Your task to perform on an android device: Go to Android settings Image 0: 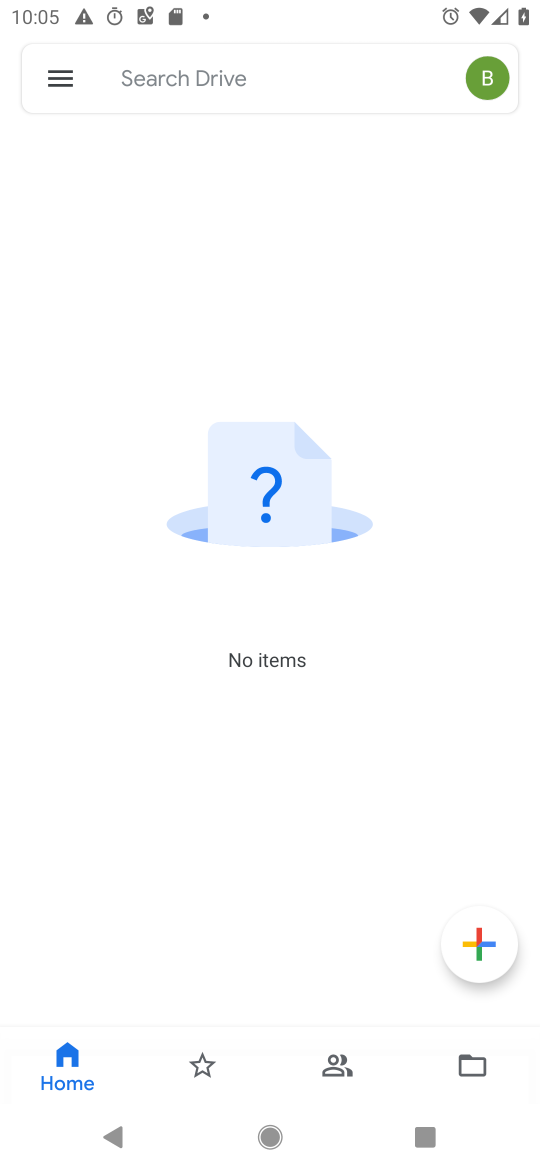
Step 0: click (524, 126)
Your task to perform on an android device: Go to Android settings Image 1: 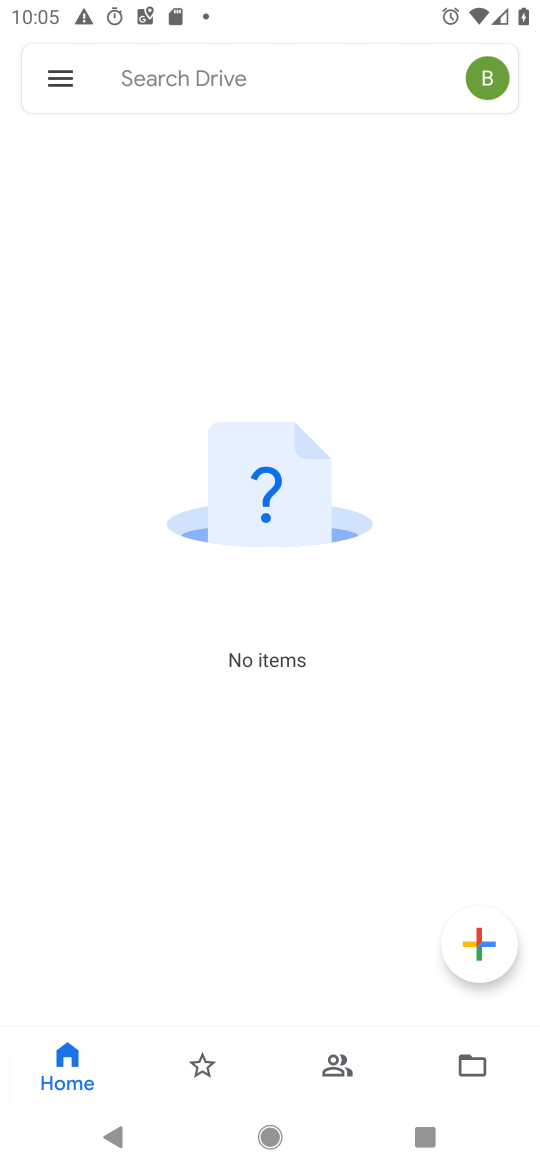
Step 1: drag from (275, 986) to (271, 445)
Your task to perform on an android device: Go to Android settings Image 2: 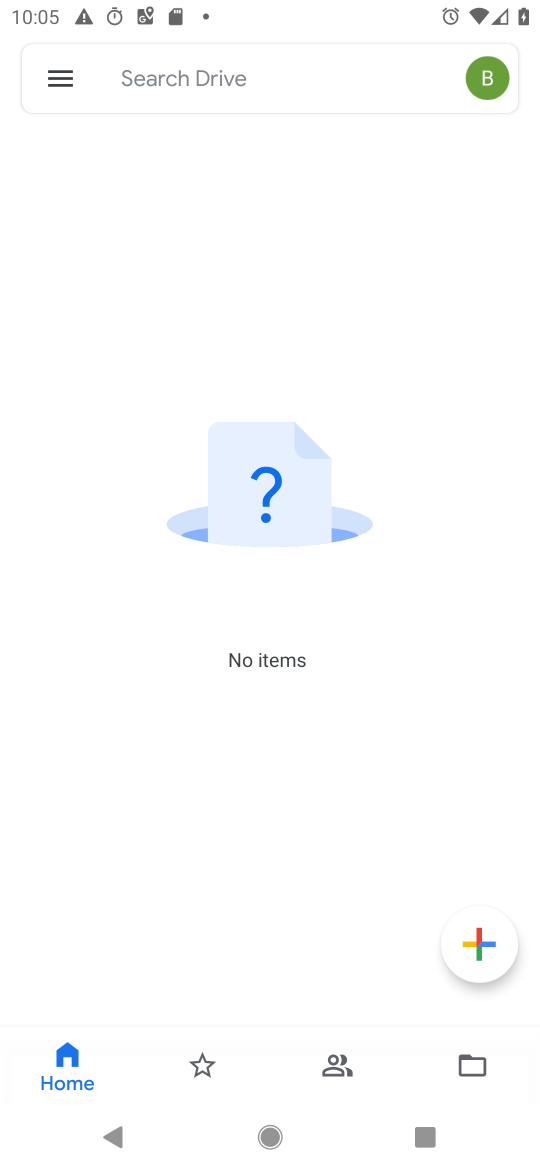
Step 2: drag from (293, 952) to (332, 666)
Your task to perform on an android device: Go to Android settings Image 3: 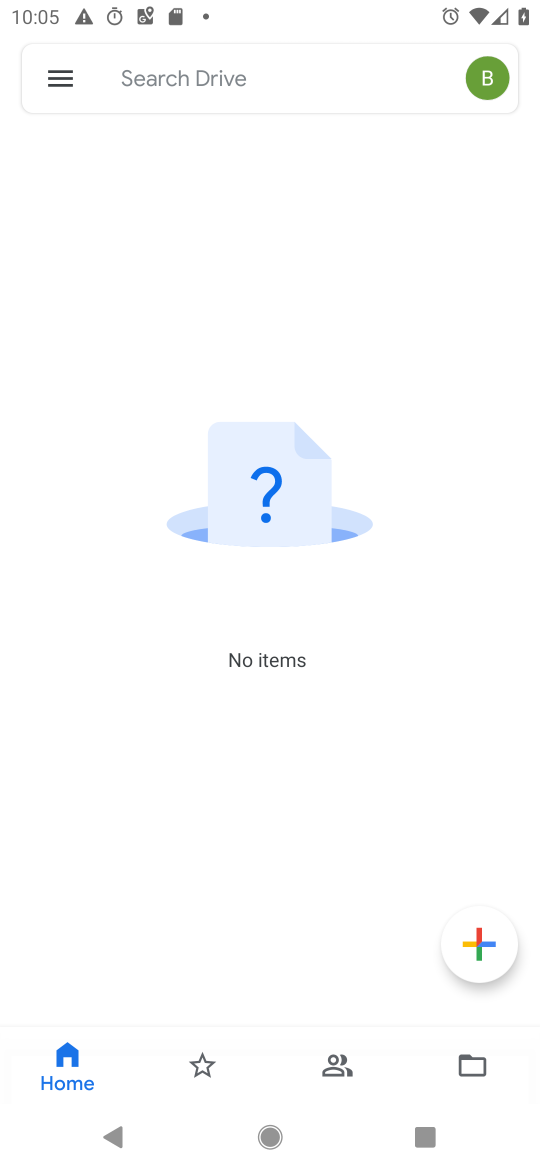
Step 3: press home button
Your task to perform on an android device: Go to Android settings Image 4: 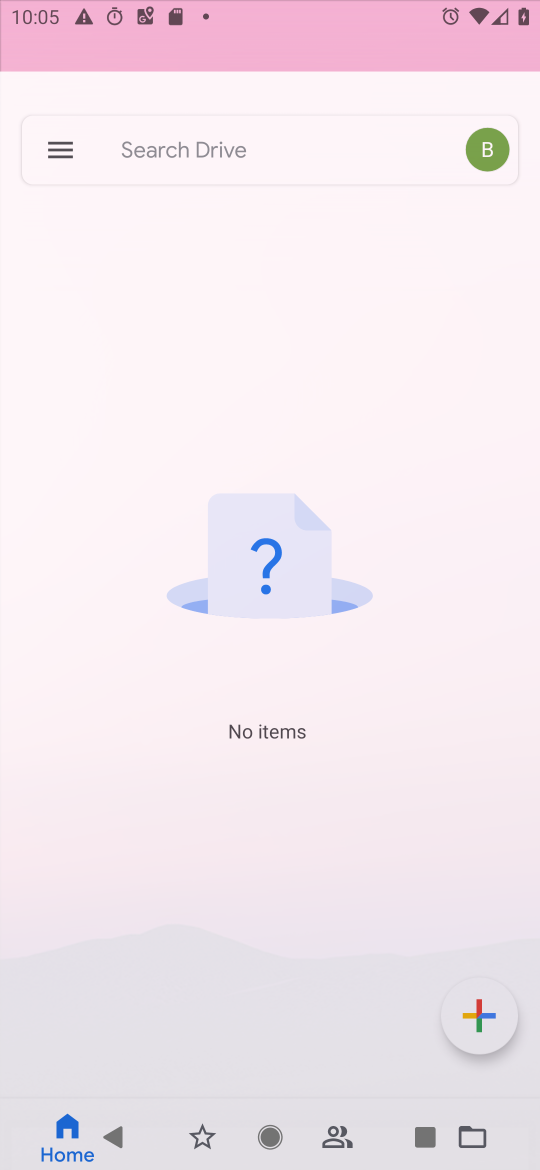
Step 4: drag from (293, 969) to (460, 401)
Your task to perform on an android device: Go to Android settings Image 5: 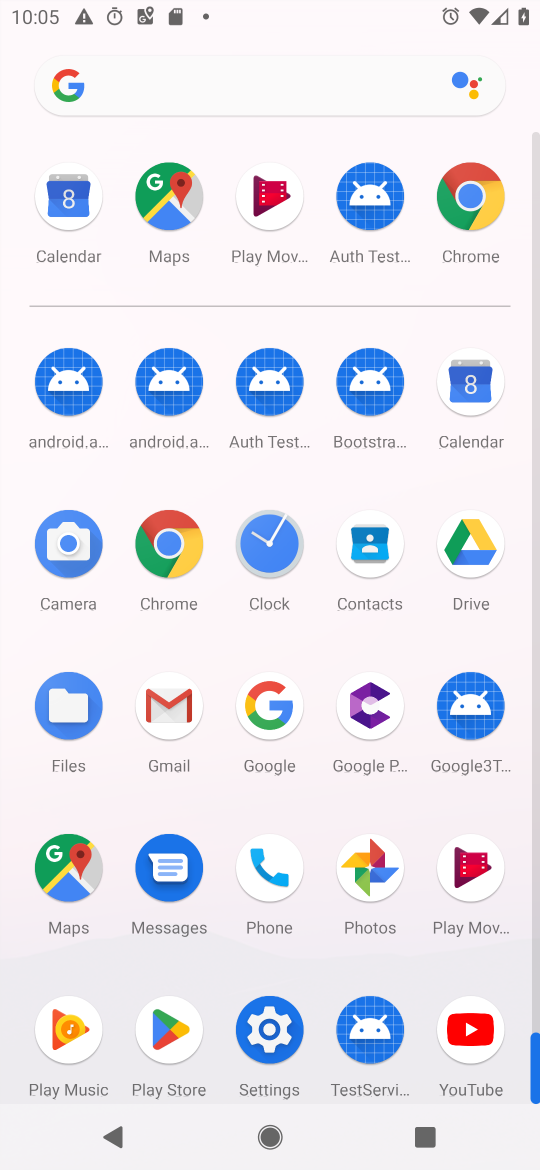
Step 5: click (271, 1033)
Your task to perform on an android device: Go to Android settings Image 6: 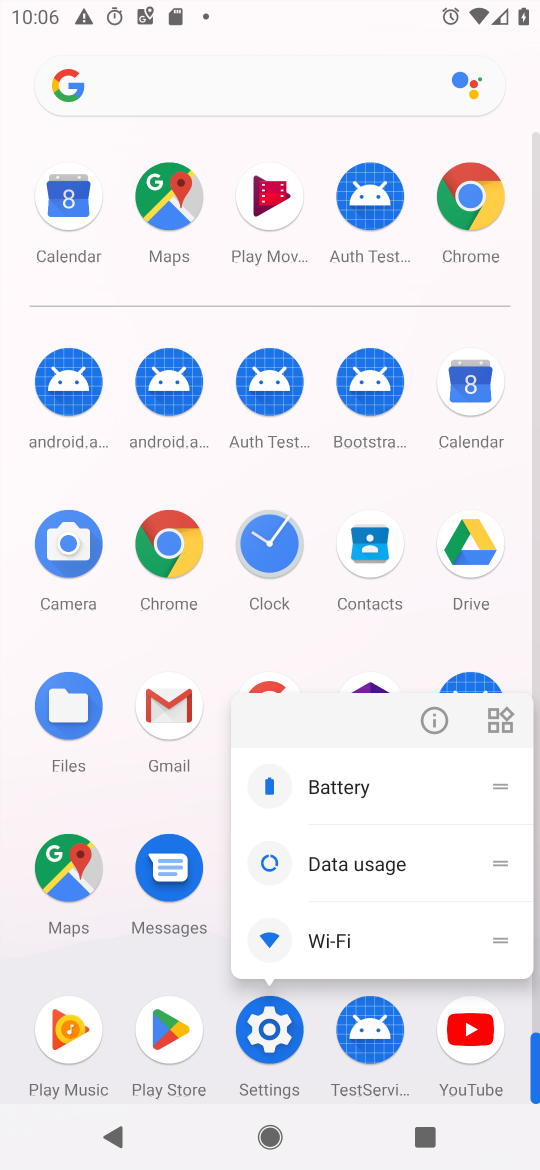
Step 6: click (420, 711)
Your task to perform on an android device: Go to Android settings Image 7: 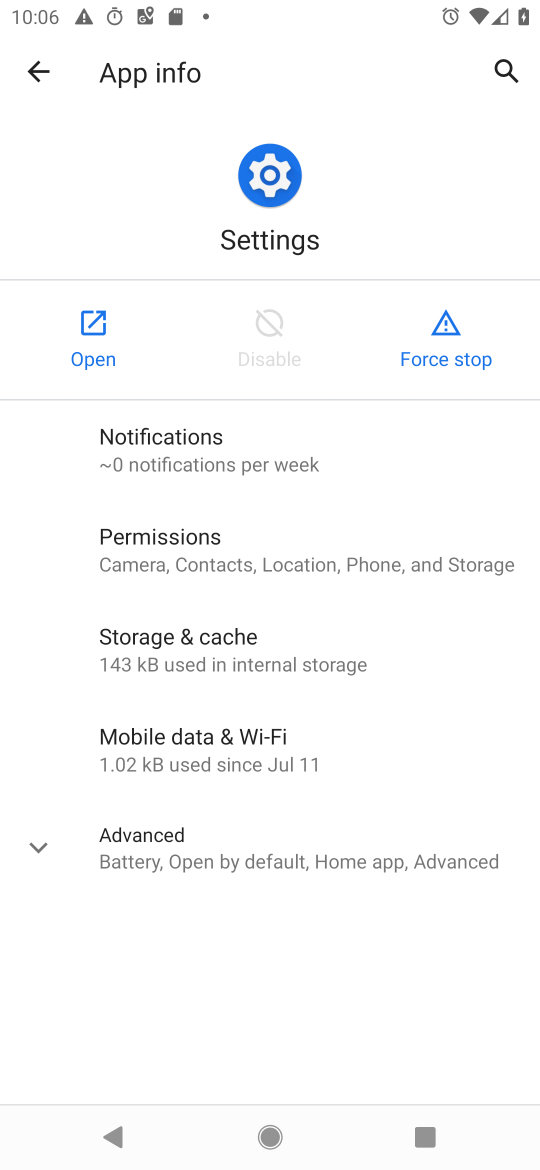
Step 7: click (76, 308)
Your task to perform on an android device: Go to Android settings Image 8: 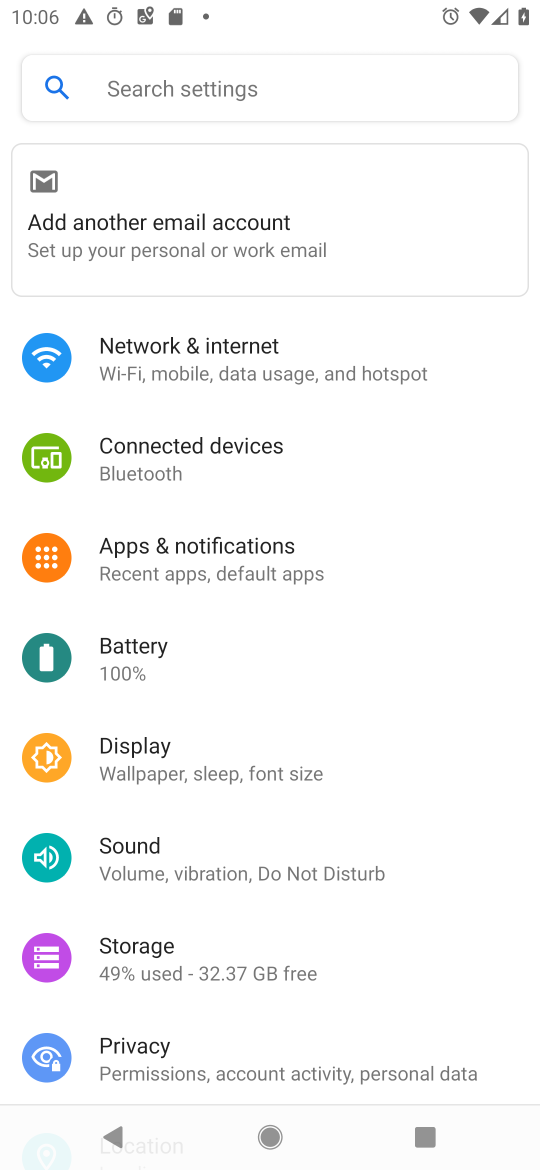
Step 8: drag from (227, 983) to (358, 402)
Your task to perform on an android device: Go to Android settings Image 9: 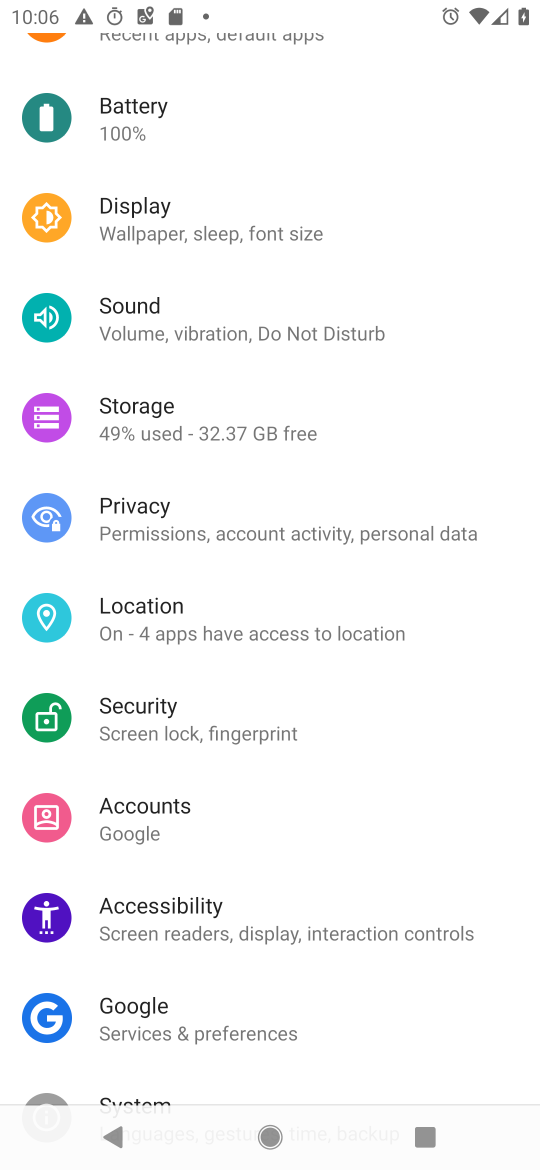
Step 9: drag from (227, 820) to (234, 316)
Your task to perform on an android device: Go to Android settings Image 10: 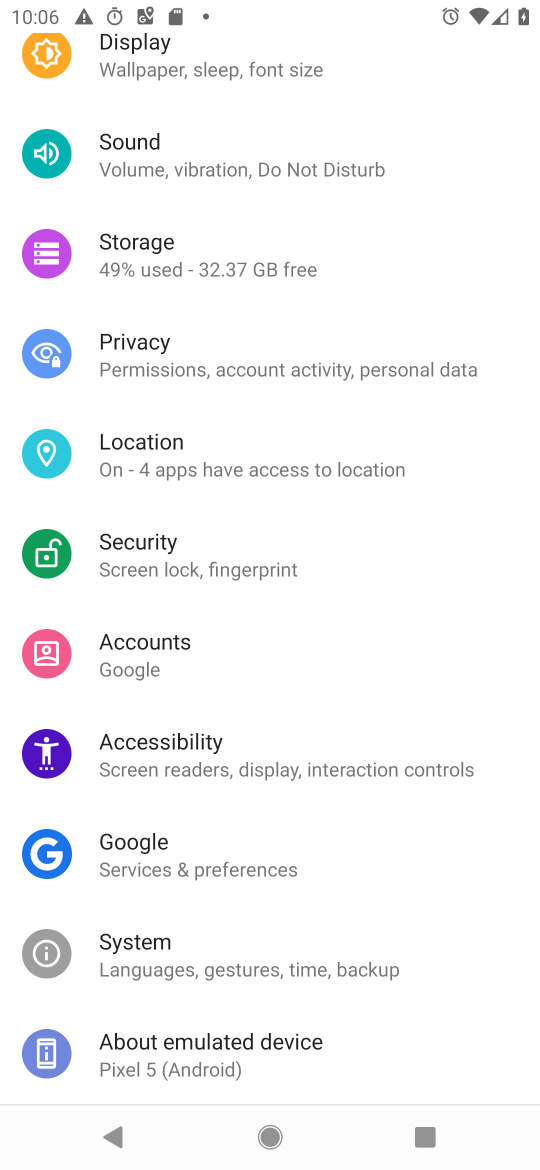
Step 10: drag from (177, 1005) to (266, 272)
Your task to perform on an android device: Go to Android settings Image 11: 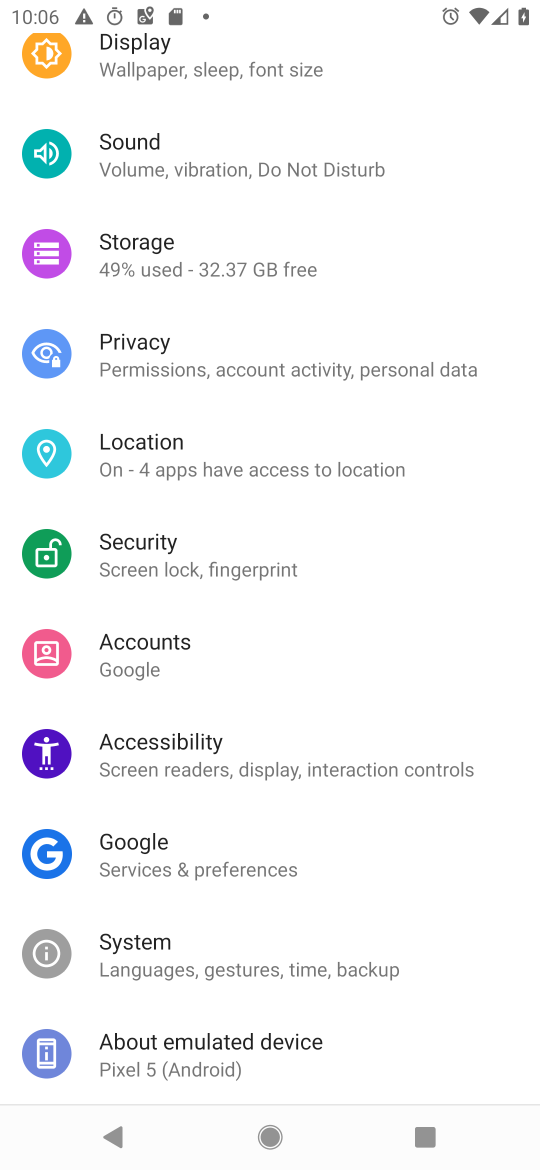
Step 11: click (263, 1049)
Your task to perform on an android device: Go to Android settings Image 12: 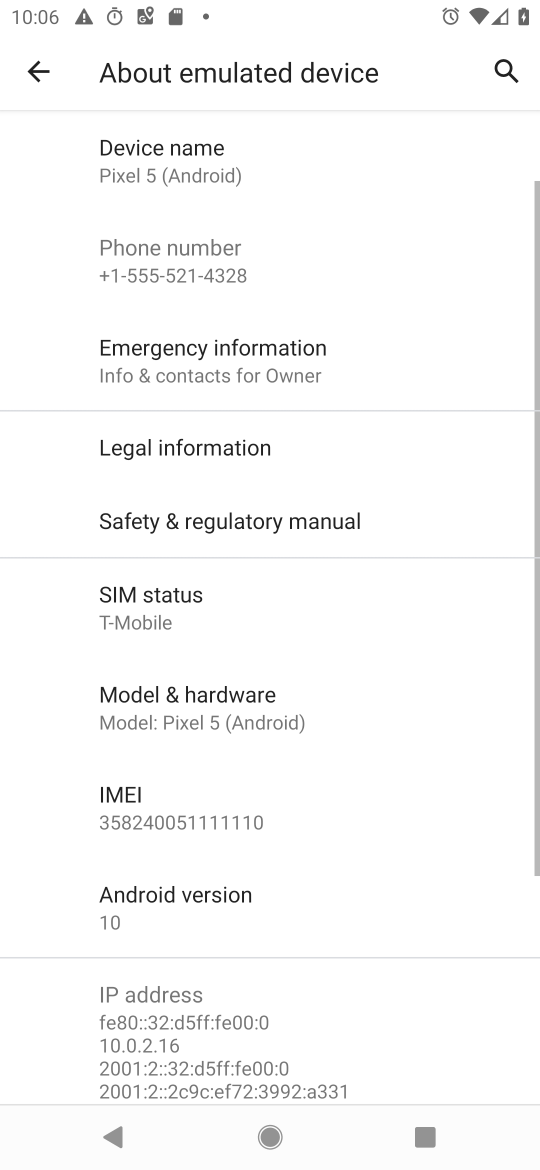
Step 12: click (270, 928)
Your task to perform on an android device: Go to Android settings Image 13: 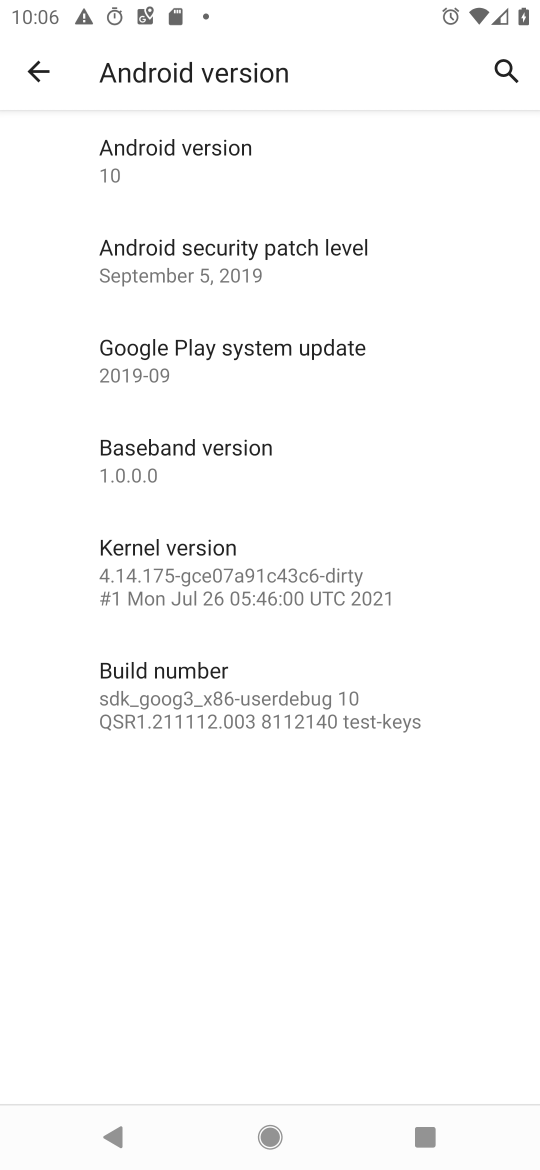
Step 13: click (230, 170)
Your task to perform on an android device: Go to Android settings Image 14: 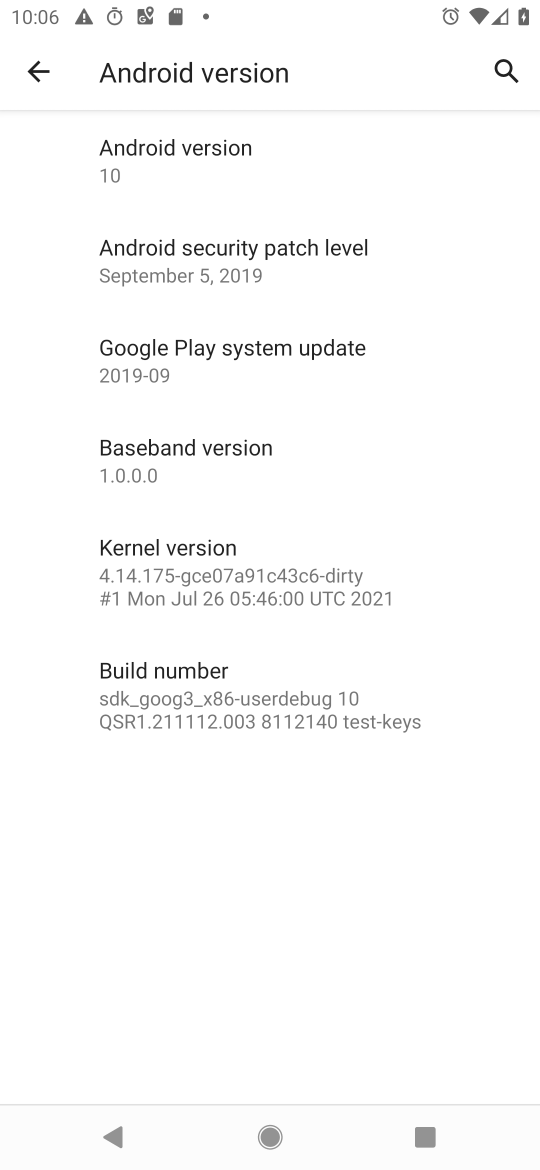
Step 14: task complete